Your task to perform on an android device: remove spam from my inbox in the gmail app Image 0: 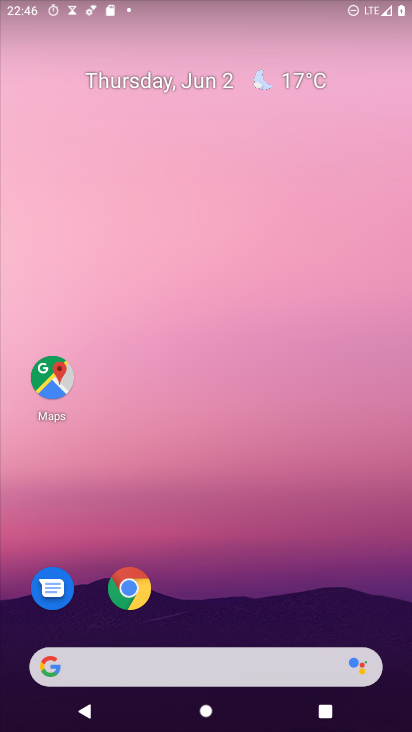
Step 0: drag from (223, 532) to (272, 115)
Your task to perform on an android device: remove spam from my inbox in the gmail app Image 1: 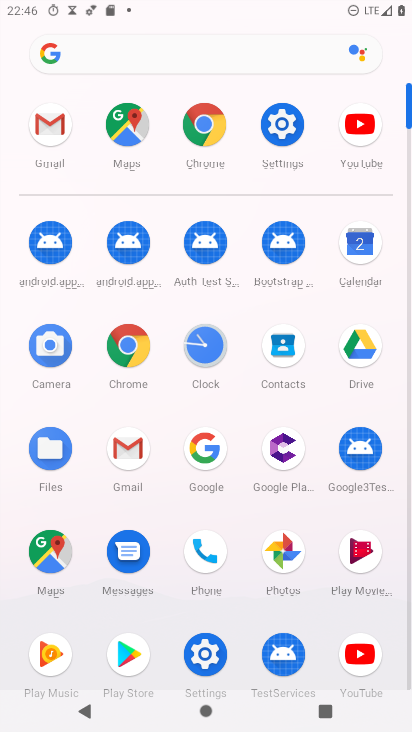
Step 1: click (48, 121)
Your task to perform on an android device: remove spam from my inbox in the gmail app Image 2: 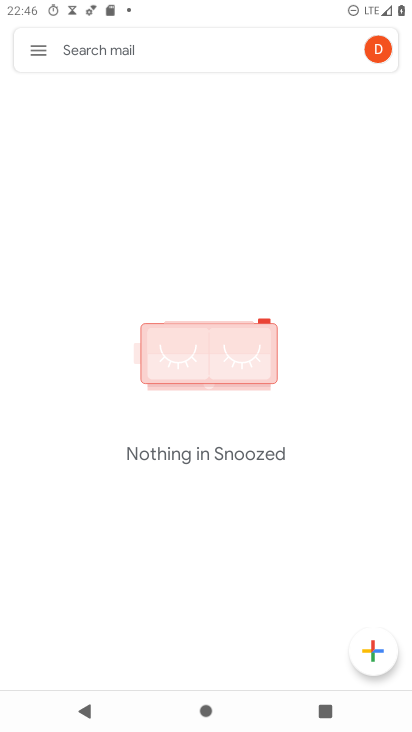
Step 2: click (38, 51)
Your task to perform on an android device: remove spam from my inbox in the gmail app Image 3: 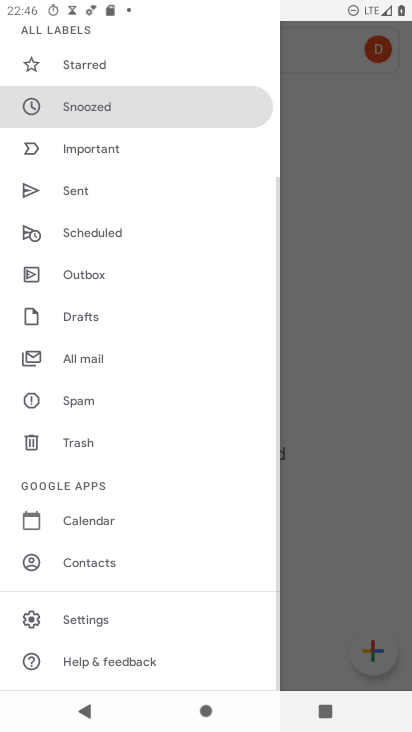
Step 3: click (78, 401)
Your task to perform on an android device: remove spam from my inbox in the gmail app Image 4: 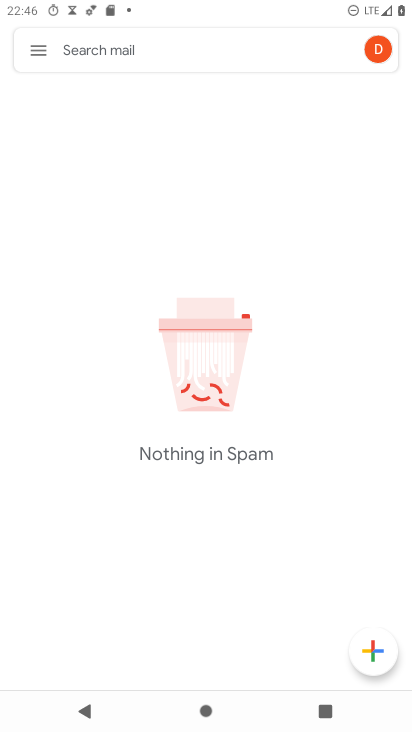
Step 4: task complete